Your task to perform on an android device: Go to network settings Image 0: 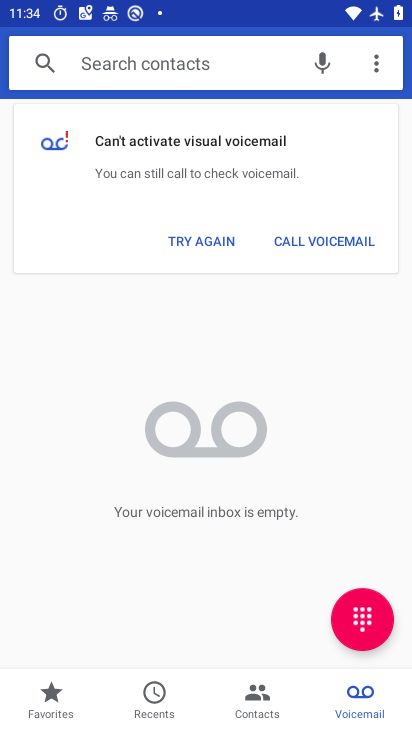
Step 0: press back button
Your task to perform on an android device: Go to network settings Image 1: 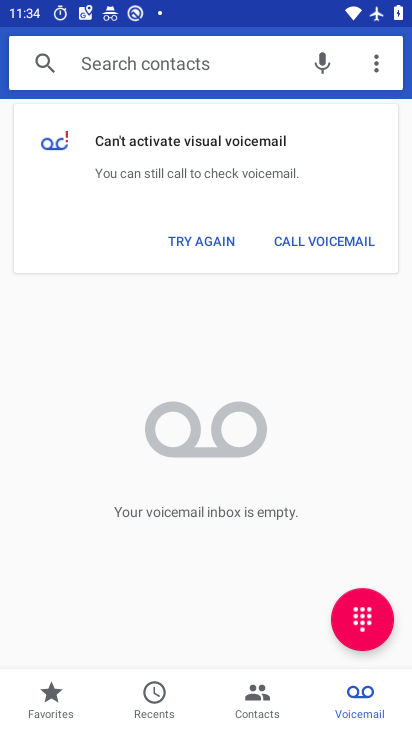
Step 1: press back button
Your task to perform on an android device: Go to network settings Image 2: 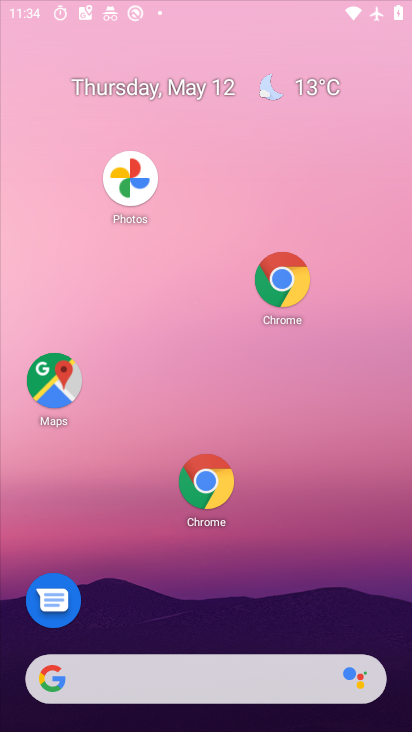
Step 2: press back button
Your task to perform on an android device: Go to network settings Image 3: 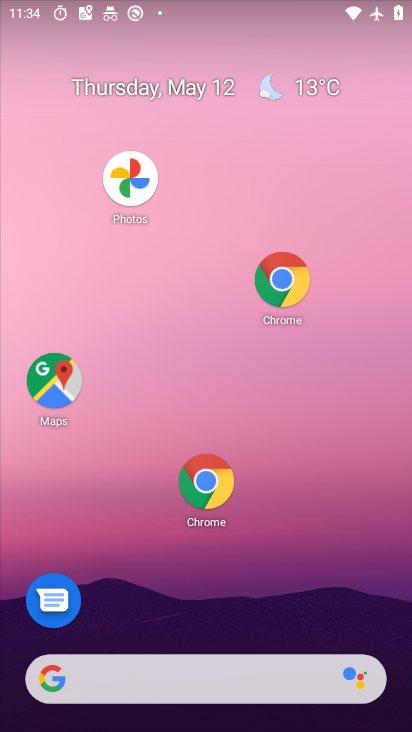
Step 3: drag from (316, 554) to (142, 133)
Your task to perform on an android device: Go to network settings Image 4: 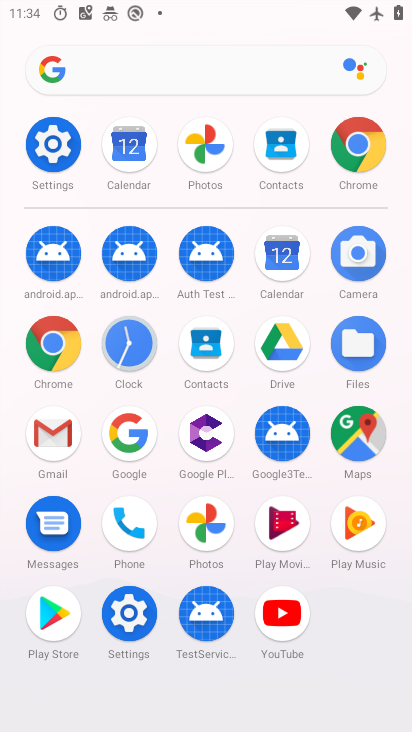
Step 4: click (41, 145)
Your task to perform on an android device: Go to network settings Image 5: 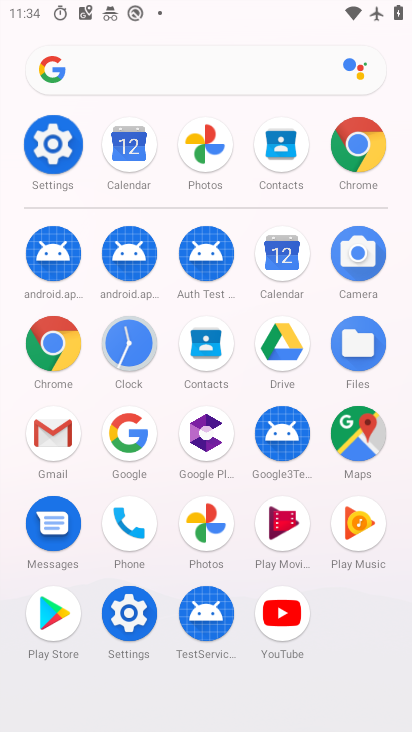
Step 5: click (42, 142)
Your task to perform on an android device: Go to network settings Image 6: 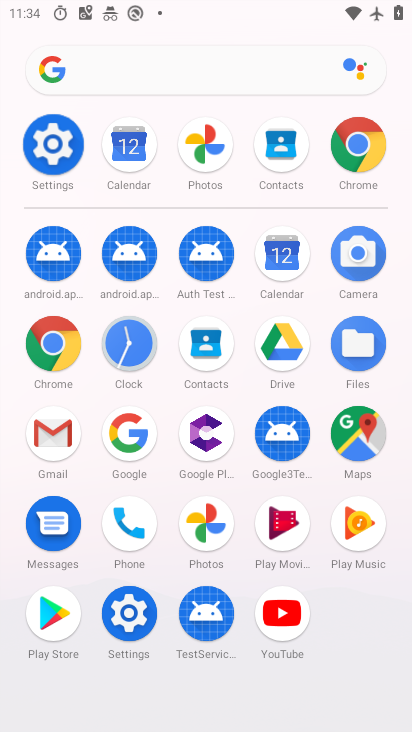
Step 6: click (39, 133)
Your task to perform on an android device: Go to network settings Image 7: 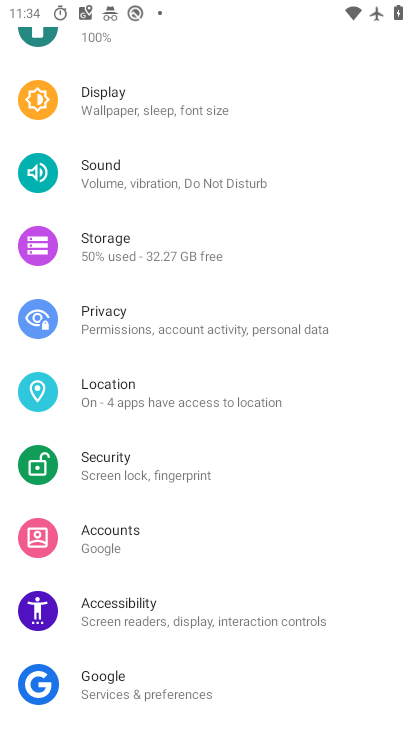
Step 7: drag from (172, 203) to (268, 538)
Your task to perform on an android device: Go to network settings Image 8: 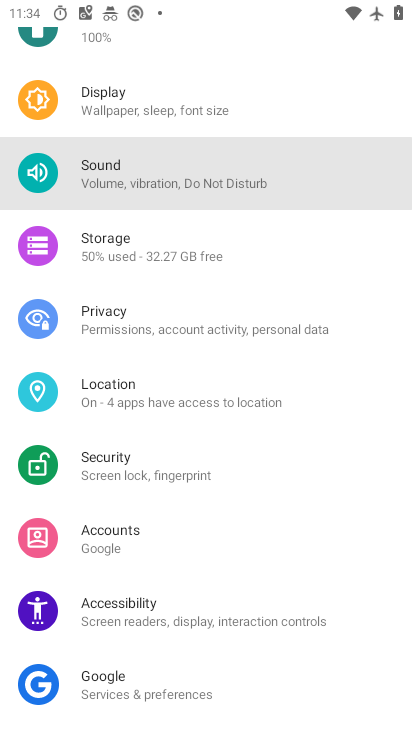
Step 8: drag from (224, 201) to (275, 539)
Your task to perform on an android device: Go to network settings Image 9: 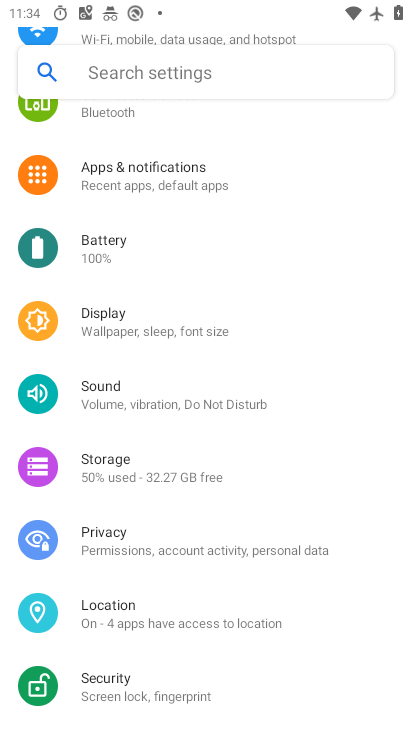
Step 9: drag from (280, 285) to (292, 499)
Your task to perform on an android device: Go to network settings Image 10: 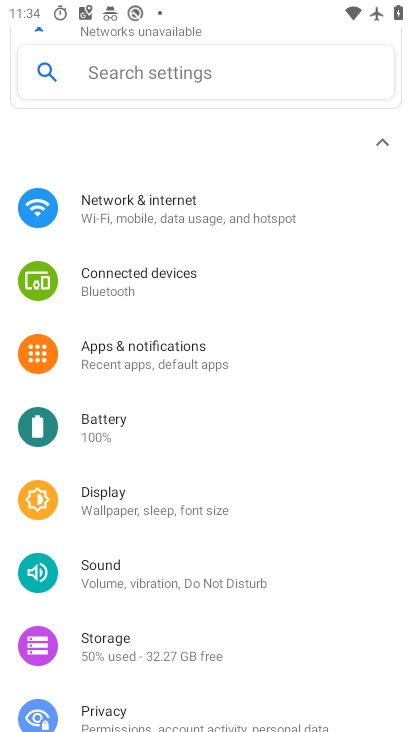
Step 10: click (146, 199)
Your task to perform on an android device: Go to network settings Image 11: 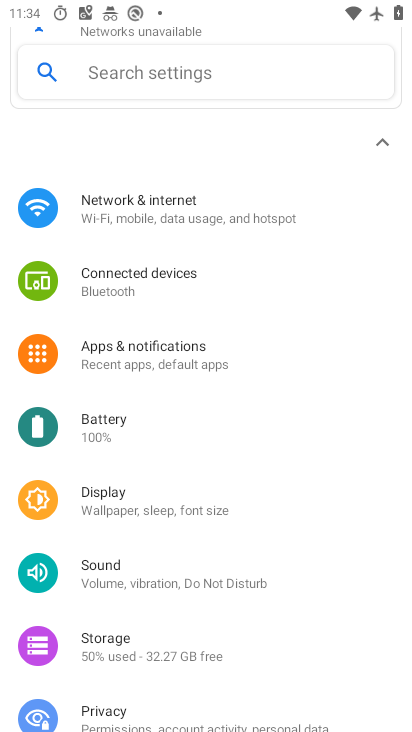
Step 11: click (147, 198)
Your task to perform on an android device: Go to network settings Image 12: 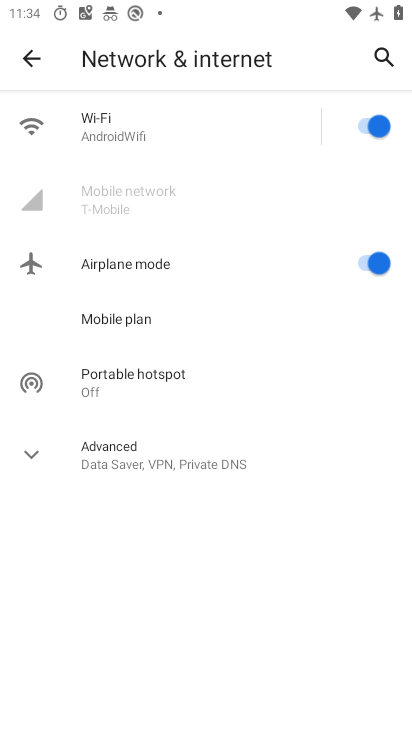
Step 12: task complete